Your task to perform on an android device: Open Google Chrome and click the shortcut for Amazon.com Image 0: 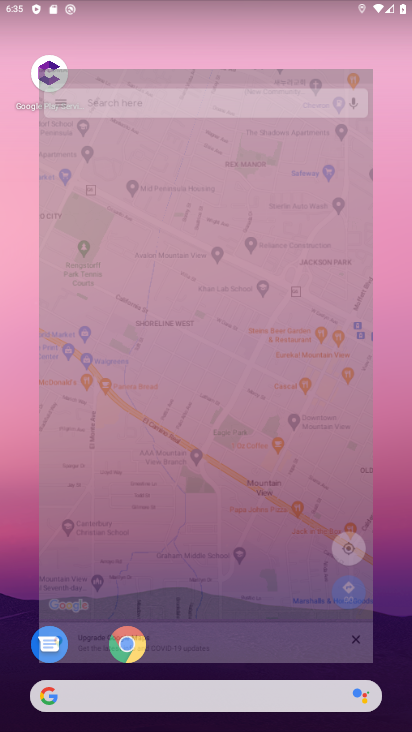
Step 0: drag from (187, 649) to (231, 199)
Your task to perform on an android device: Open Google Chrome and click the shortcut for Amazon.com Image 1: 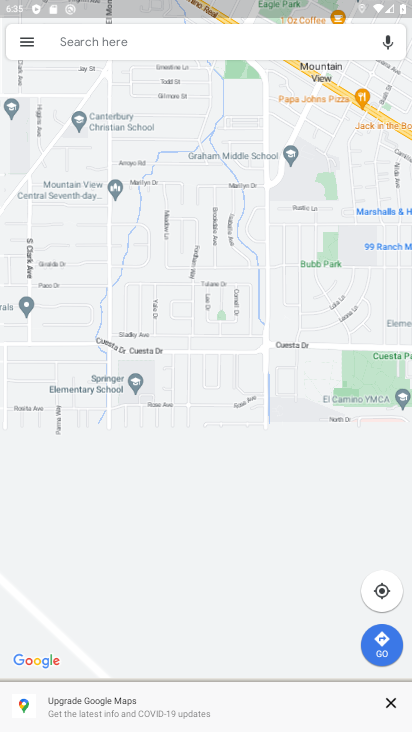
Step 1: press home button
Your task to perform on an android device: Open Google Chrome and click the shortcut for Amazon.com Image 2: 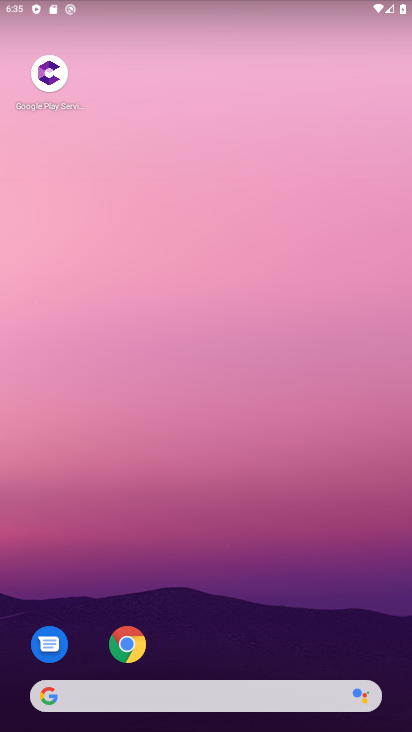
Step 2: click (133, 651)
Your task to perform on an android device: Open Google Chrome and click the shortcut for Amazon.com Image 3: 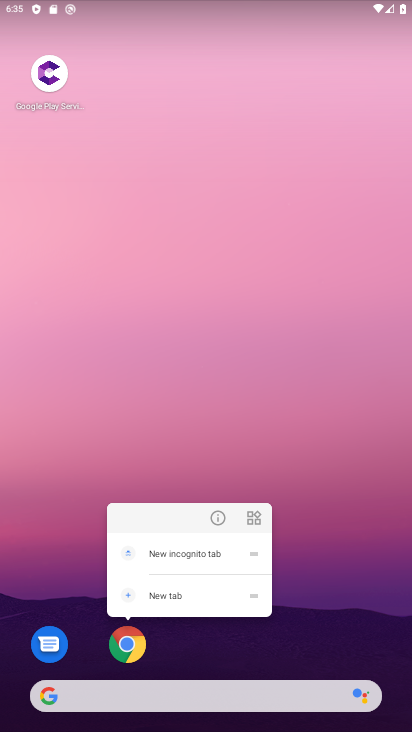
Step 3: click (130, 650)
Your task to perform on an android device: Open Google Chrome and click the shortcut for Amazon.com Image 4: 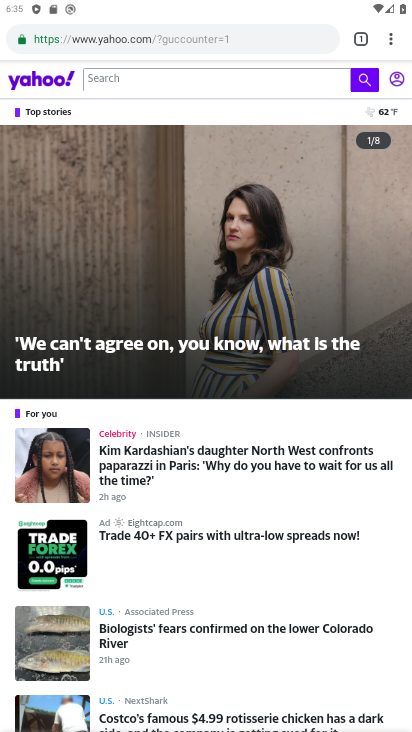
Step 4: press back button
Your task to perform on an android device: Open Google Chrome and click the shortcut for Amazon.com Image 5: 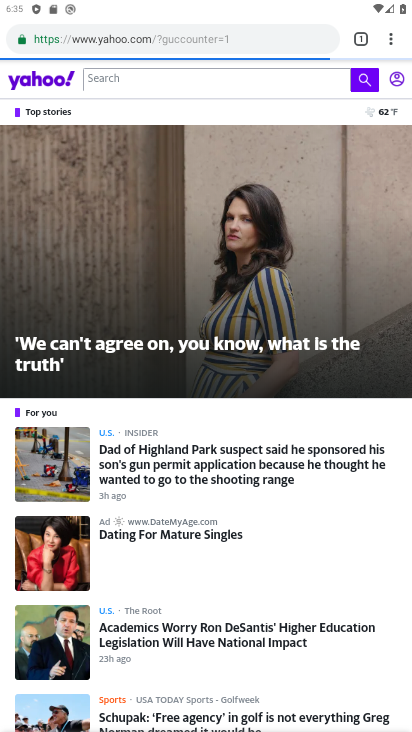
Step 5: press back button
Your task to perform on an android device: Open Google Chrome and click the shortcut for Amazon.com Image 6: 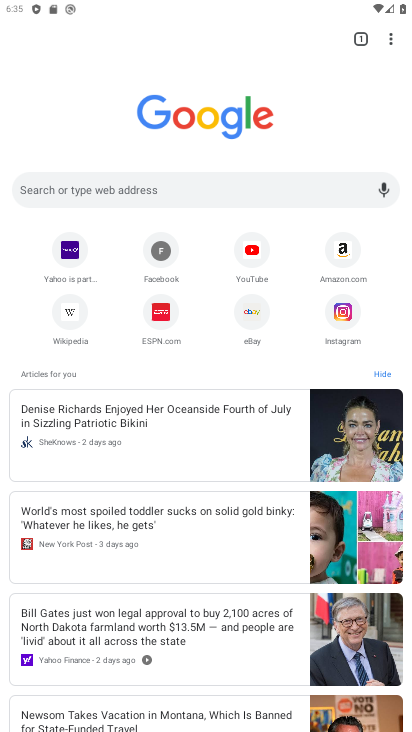
Step 6: click (338, 257)
Your task to perform on an android device: Open Google Chrome and click the shortcut for Amazon.com Image 7: 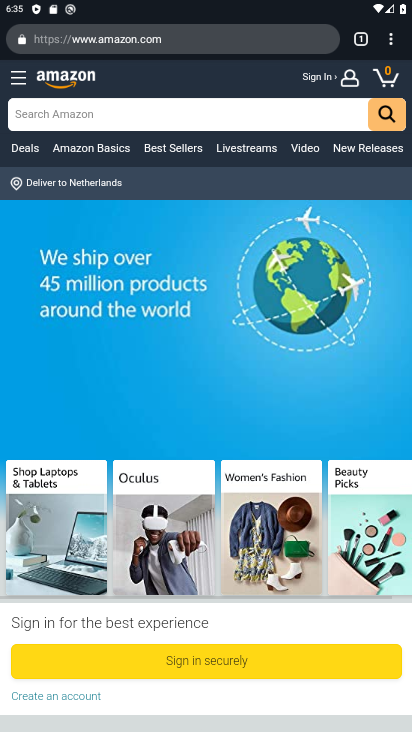
Step 7: task complete